Your task to perform on an android device: move a message to another label in the gmail app Image 0: 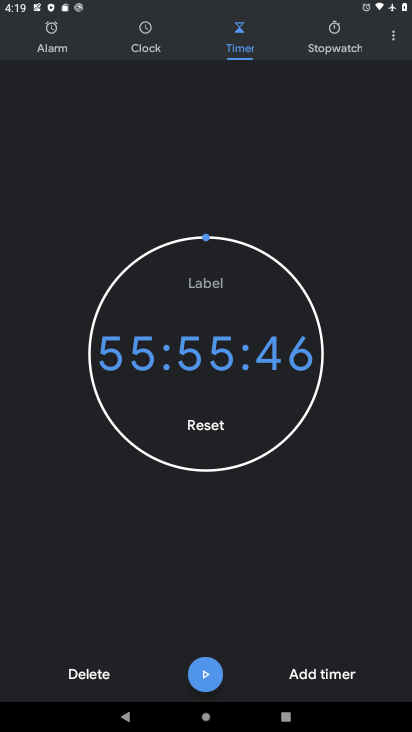
Step 0: press back button
Your task to perform on an android device: move a message to another label in the gmail app Image 1: 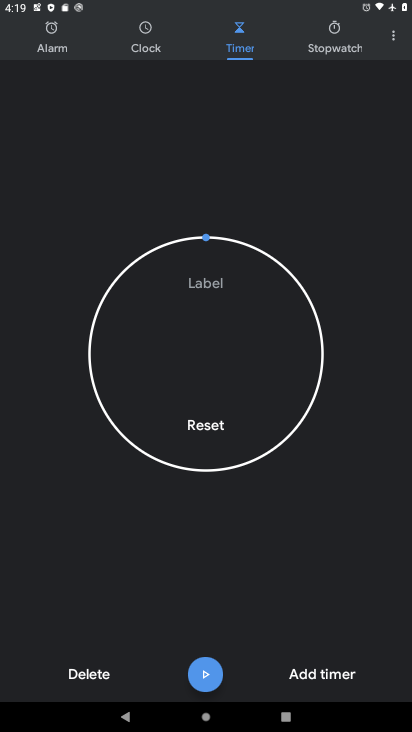
Step 1: press back button
Your task to perform on an android device: move a message to another label in the gmail app Image 2: 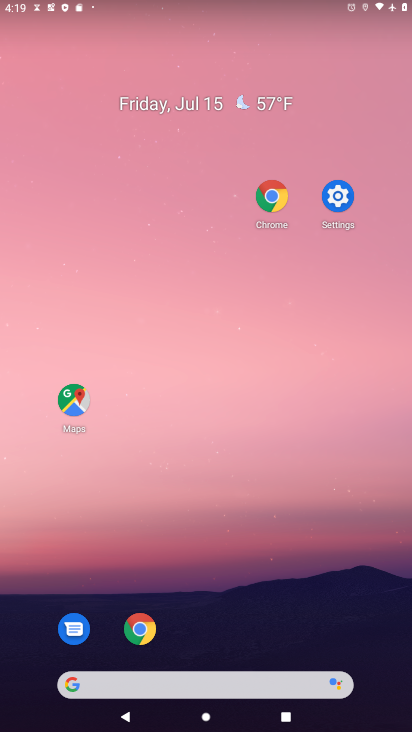
Step 2: drag from (247, 717) to (228, 253)
Your task to perform on an android device: move a message to another label in the gmail app Image 3: 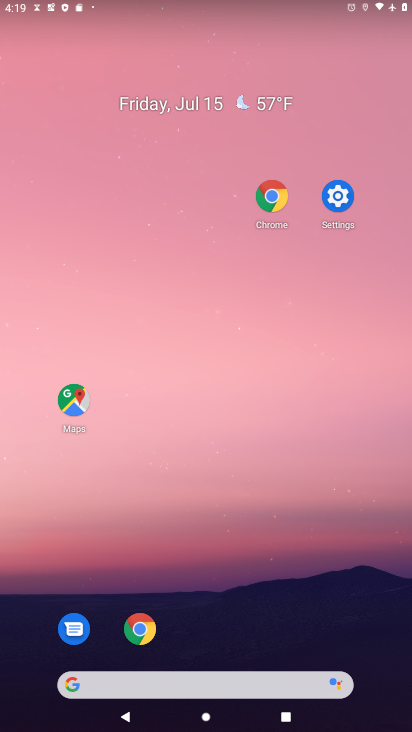
Step 3: drag from (212, 655) to (180, 415)
Your task to perform on an android device: move a message to another label in the gmail app Image 4: 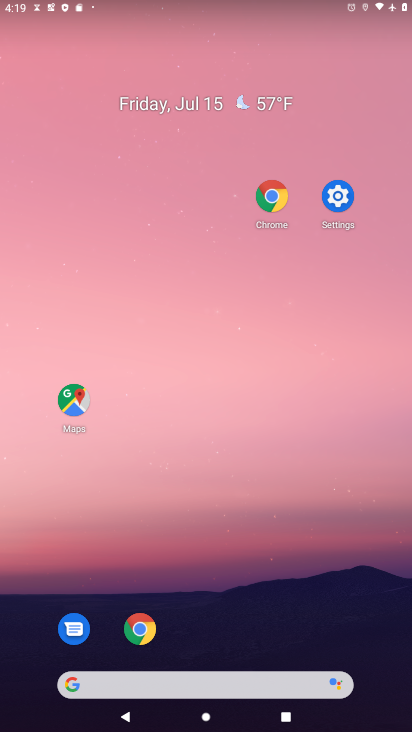
Step 4: drag from (258, 680) to (184, 159)
Your task to perform on an android device: move a message to another label in the gmail app Image 5: 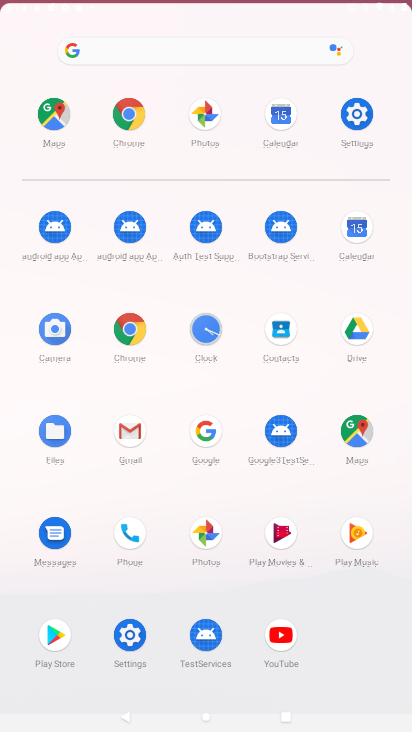
Step 5: drag from (215, 520) to (193, 85)
Your task to perform on an android device: move a message to another label in the gmail app Image 6: 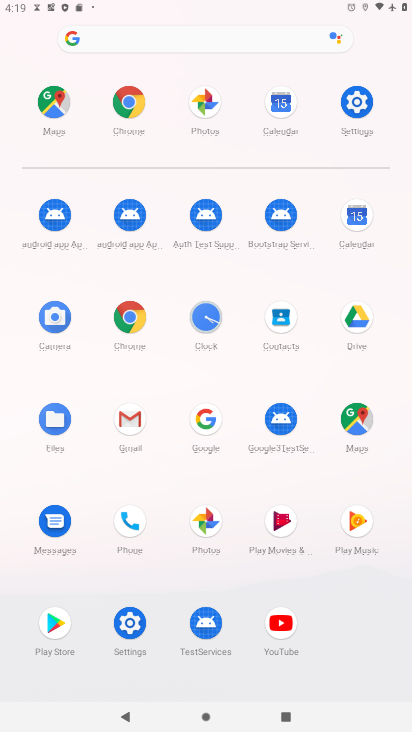
Step 6: click (132, 422)
Your task to perform on an android device: move a message to another label in the gmail app Image 7: 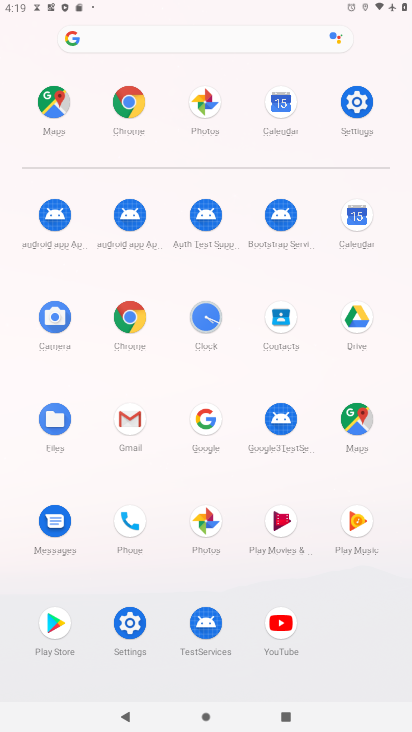
Step 7: click (131, 421)
Your task to perform on an android device: move a message to another label in the gmail app Image 8: 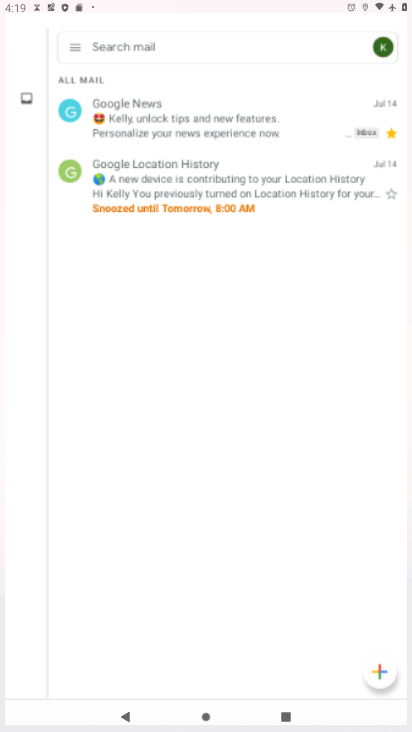
Step 8: click (137, 420)
Your task to perform on an android device: move a message to another label in the gmail app Image 9: 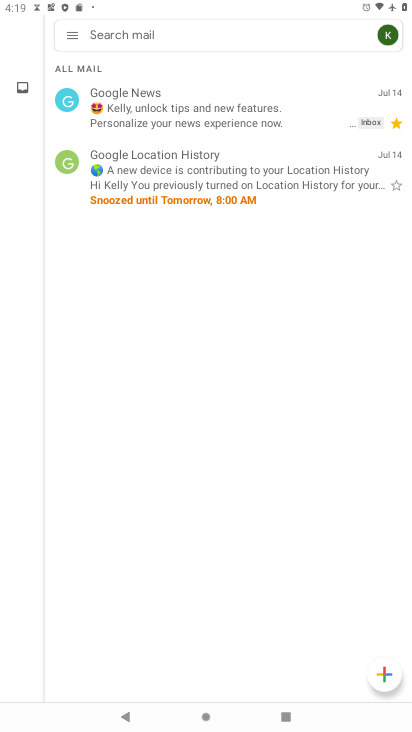
Step 9: click (189, 170)
Your task to perform on an android device: move a message to another label in the gmail app Image 10: 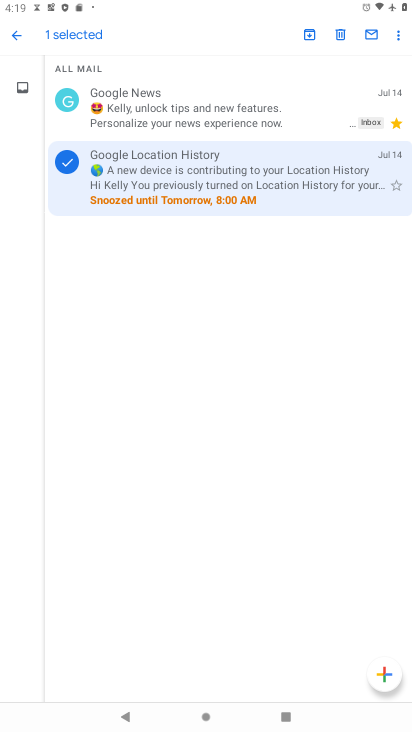
Step 10: click (393, 32)
Your task to perform on an android device: move a message to another label in the gmail app Image 11: 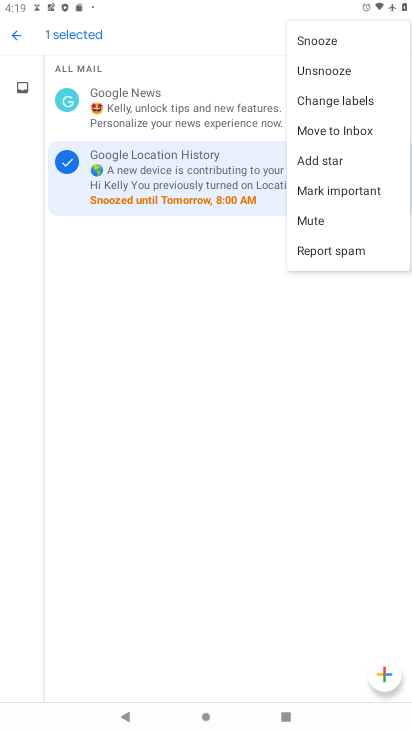
Step 11: click (334, 96)
Your task to perform on an android device: move a message to another label in the gmail app Image 12: 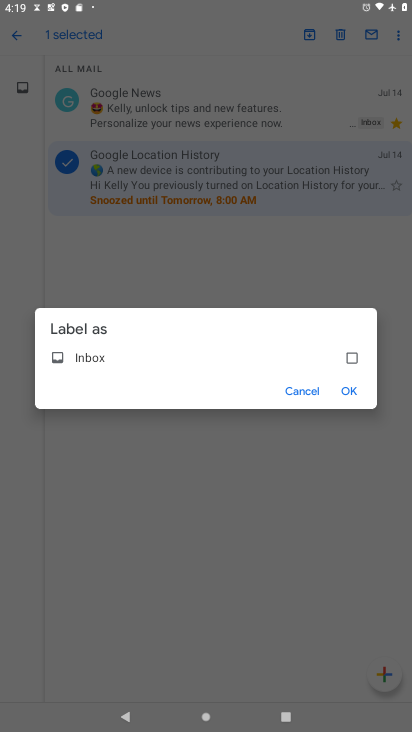
Step 12: click (344, 388)
Your task to perform on an android device: move a message to another label in the gmail app Image 13: 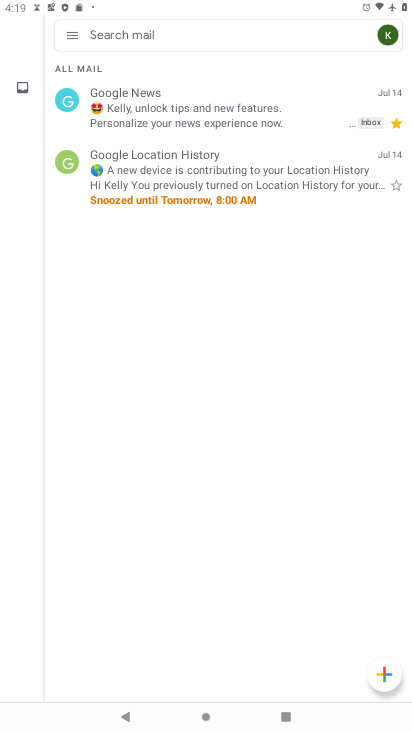
Step 13: task complete